Your task to perform on an android device: Open Maps and search for coffee Image 0: 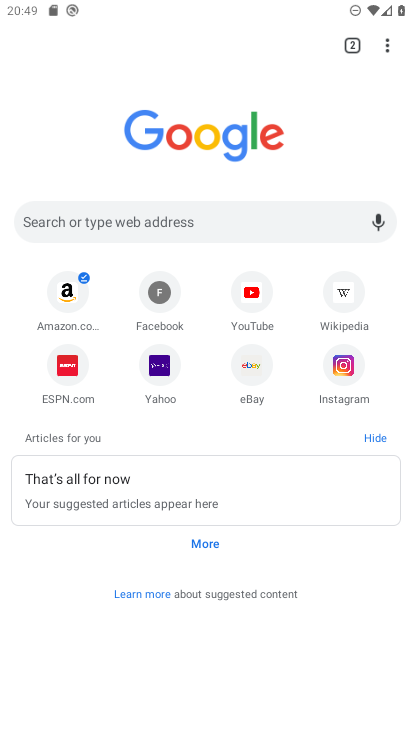
Step 0: press home button
Your task to perform on an android device: Open Maps and search for coffee Image 1: 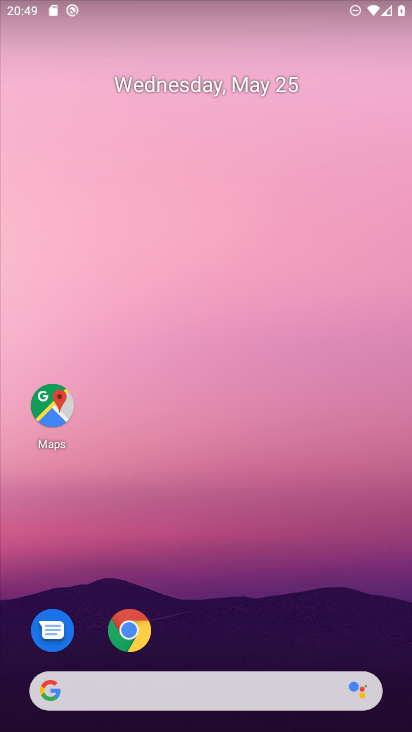
Step 1: click (50, 411)
Your task to perform on an android device: Open Maps and search for coffee Image 2: 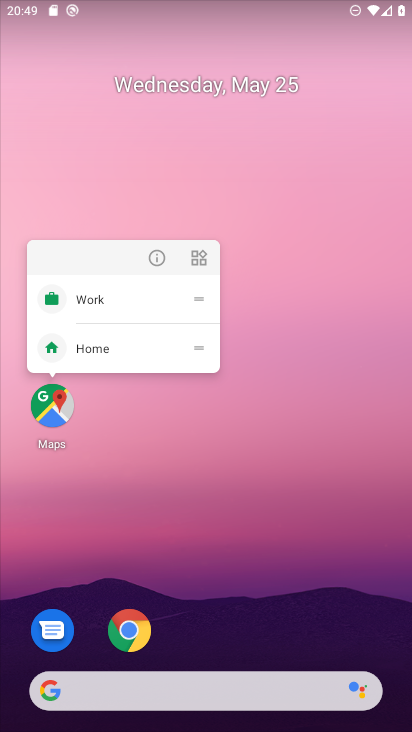
Step 2: click (54, 401)
Your task to perform on an android device: Open Maps and search for coffee Image 3: 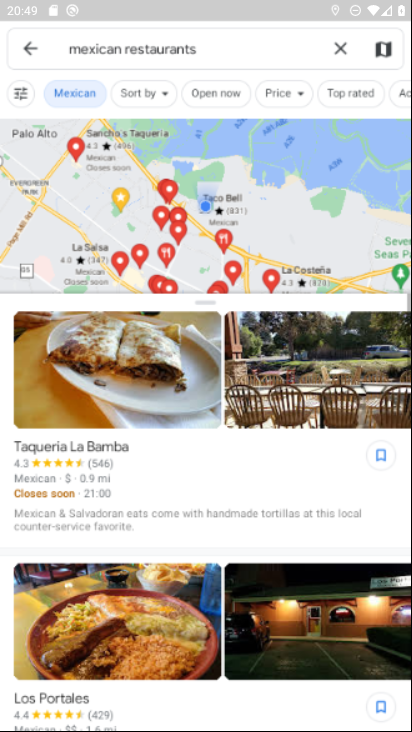
Step 3: click (256, 58)
Your task to perform on an android device: Open Maps and search for coffee Image 4: 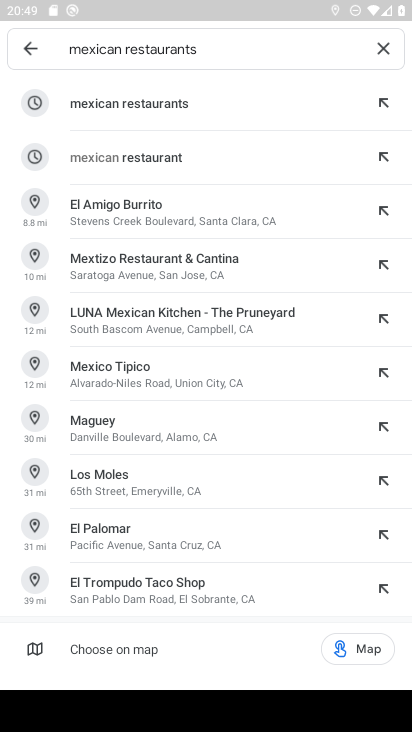
Step 4: click (384, 48)
Your task to perform on an android device: Open Maps and search for coffee Image 5: 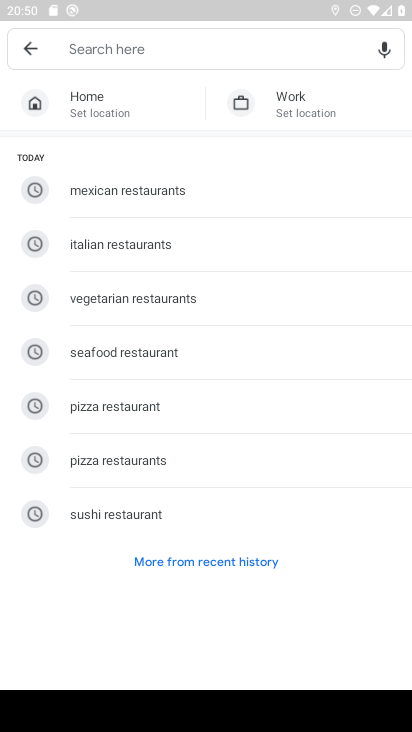
Step 5: type "coffeee"
Your task to perform on an android device: Open Maps and search for coffee Image 6: 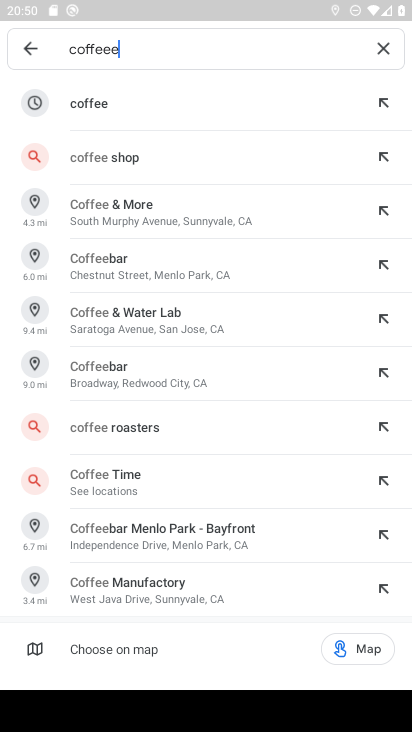
Step 6: click (163, 123)
Your task to perform on an android device: Open Maps and search for coffee Image 7: 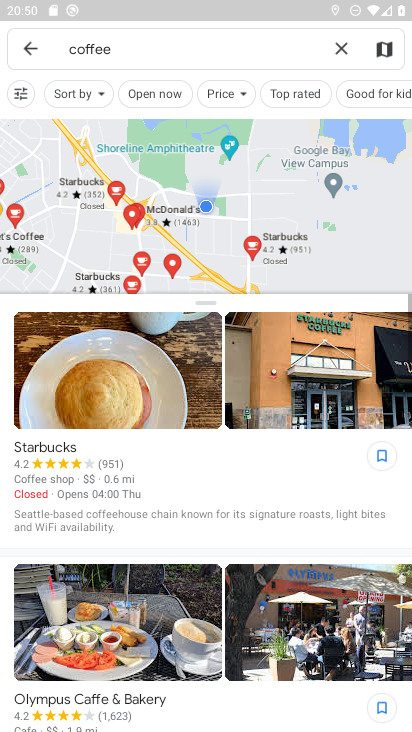
Step 7: task complete